Your task to perform on an android device: Do I have any events today? Image 0: 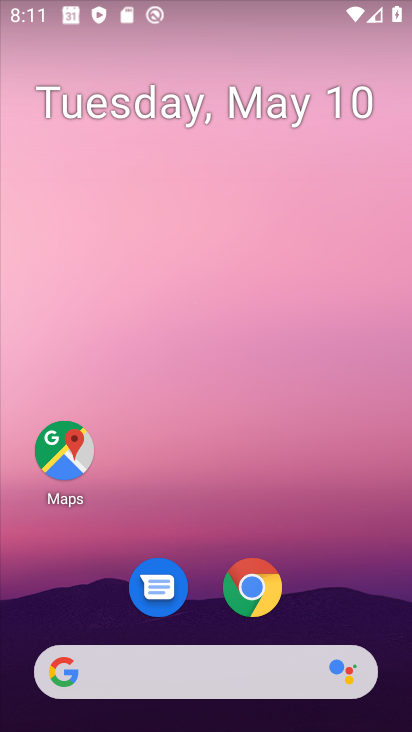
Step 0: drag from (381, 513) to (307, 102)
Your task to perform on an android device: Do I have any events today? Image 1: 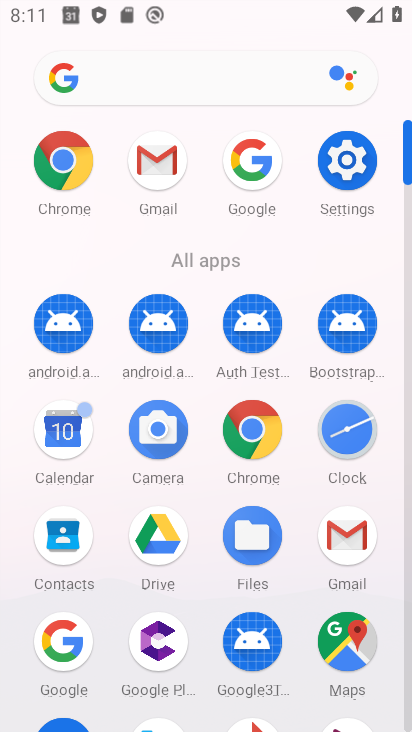
Step 1: click (51, 420)
Your task to perform on an android device: Do I have any events today? Image 2: 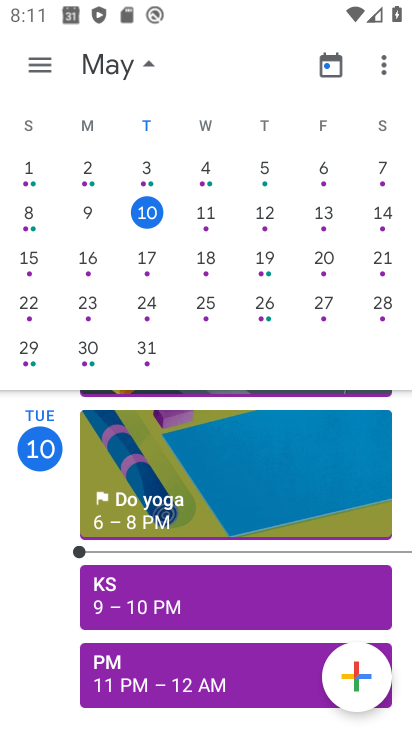
Step 2: task complete